Your task to perform on an android device: Open Google Chrome Image 0: 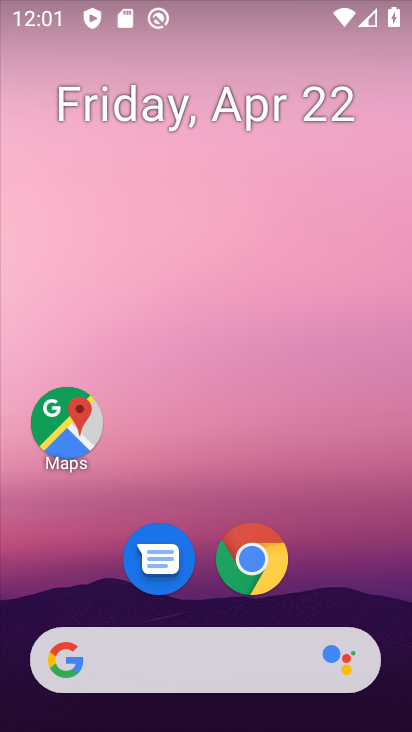
Step 0: drag from (359, 577) to (366, 118)
Your task to perform on an android device: Open Google Chrome Image 1: 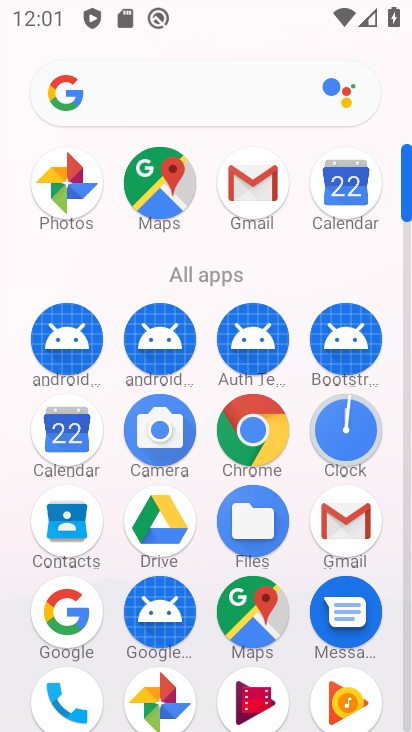
Step 1: click (242, 420)
Your task to perform on an android device: Open Google Chrome Image 2: 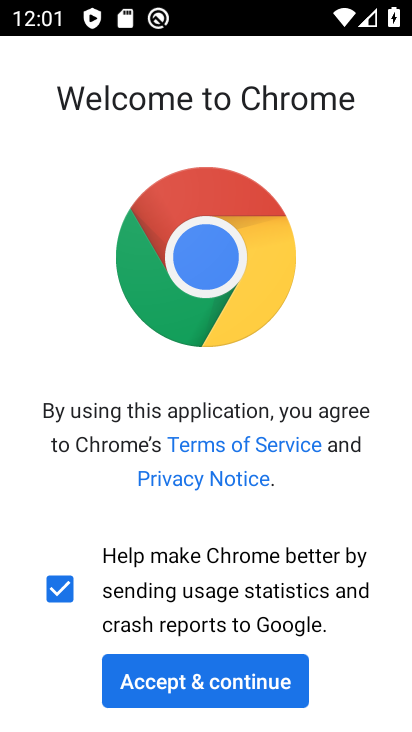
Step 2: click (269, 681)
Your task to perform on an android device: Open Google Chrome Image 3: 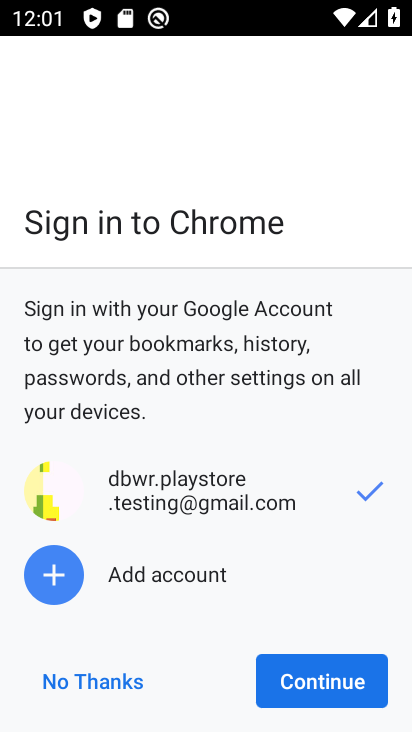
Step 3: click (343, 683)
Your task to perform on an android device: Open Google Chrome Image 4: 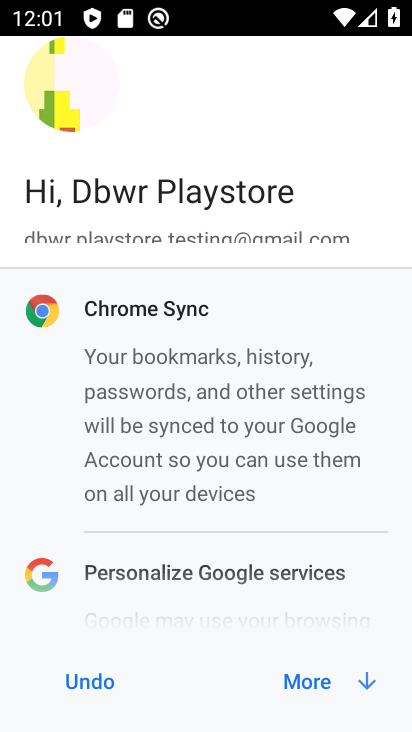
Step 4: click (317, 676)
Your task to perform on an android device: Open Google Chrome Image 5: 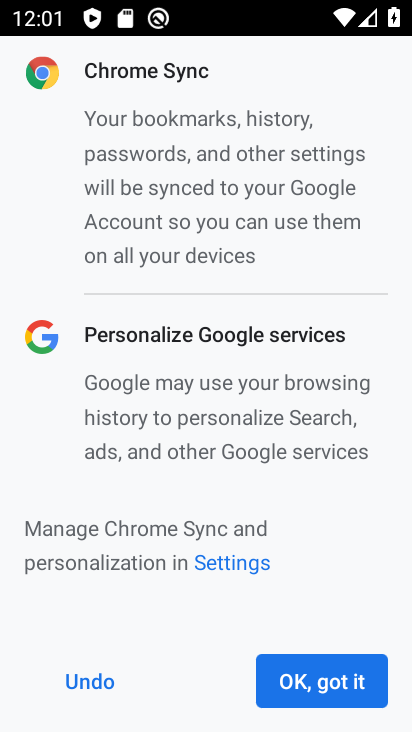
Step 5: click (365, 679)
Your task to perform on an android device: Open Google Chrome Image 6: 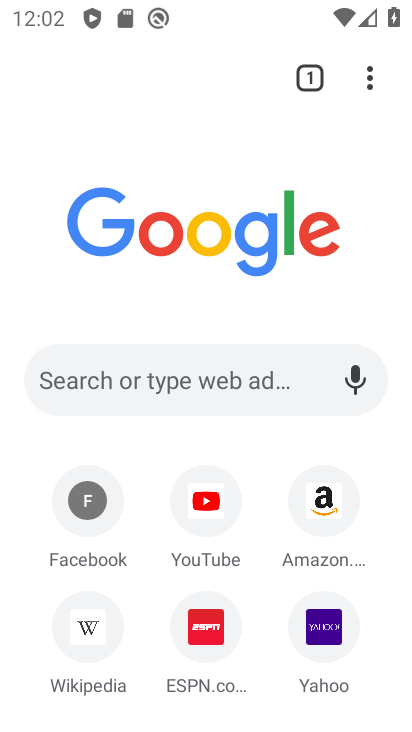
Step 6: task complete